Your task to perform on an android device: Open network settings Image 0: 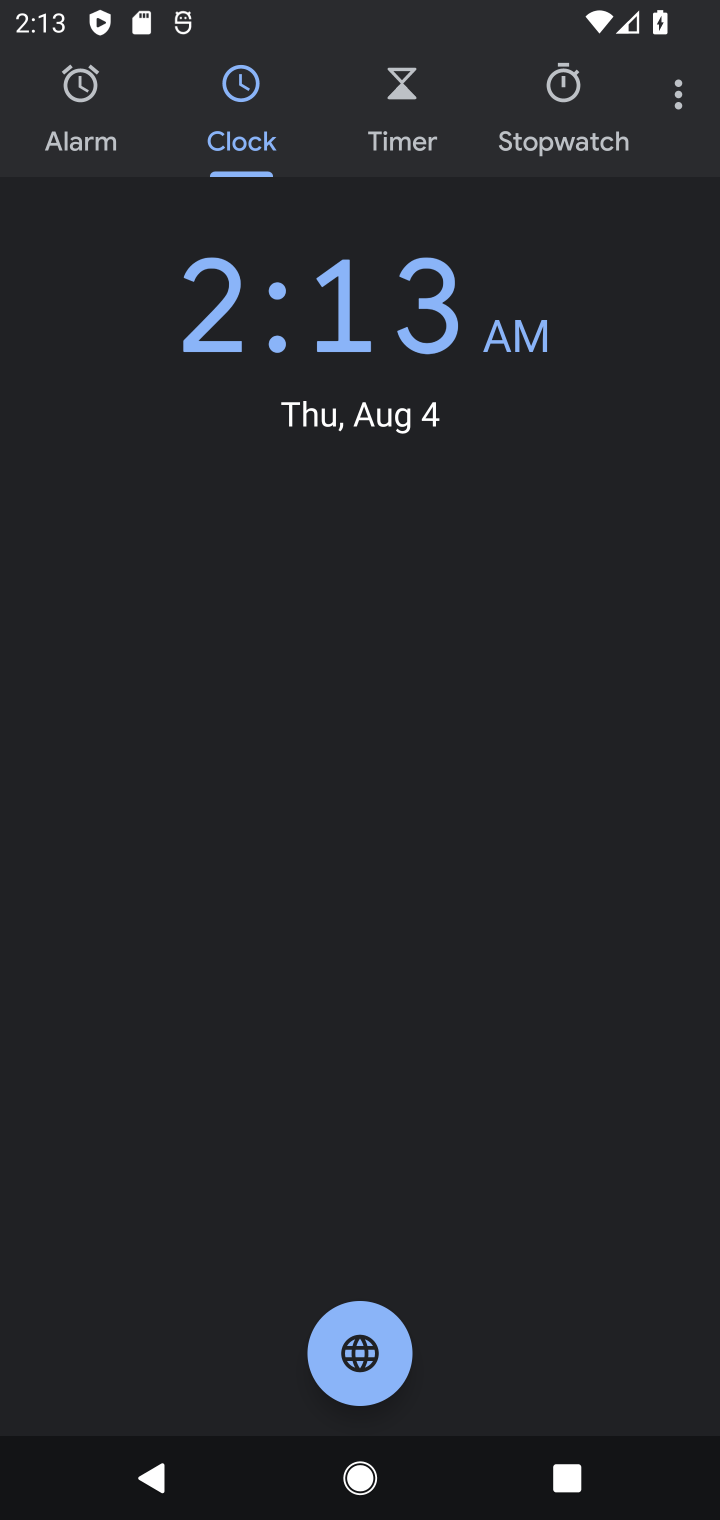
Step 0: press home button
Your task to perform on an android device: Open network settings Image 1: 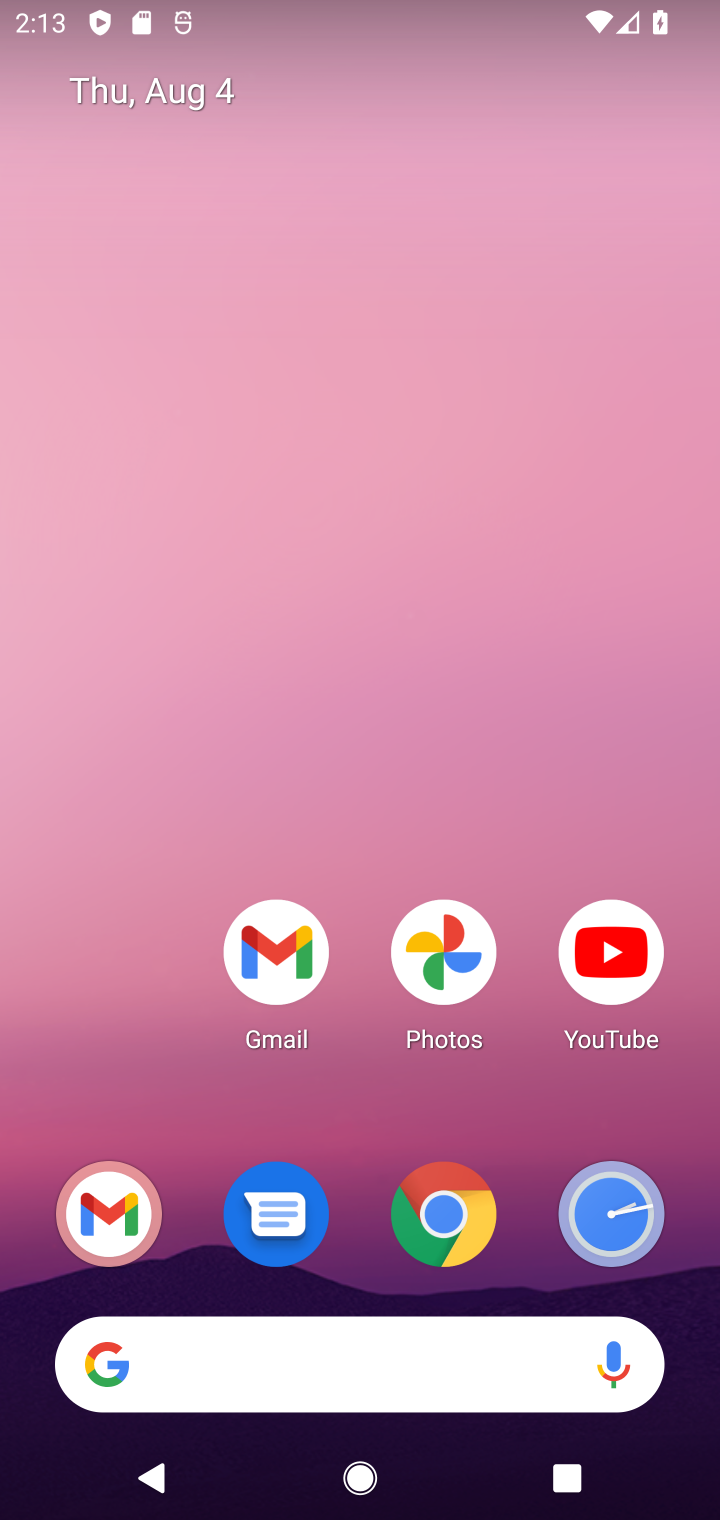
Step 1: drag from (73, 1043) to (63, 126)
Your task to perform on an android device: Open network settings Image 2: 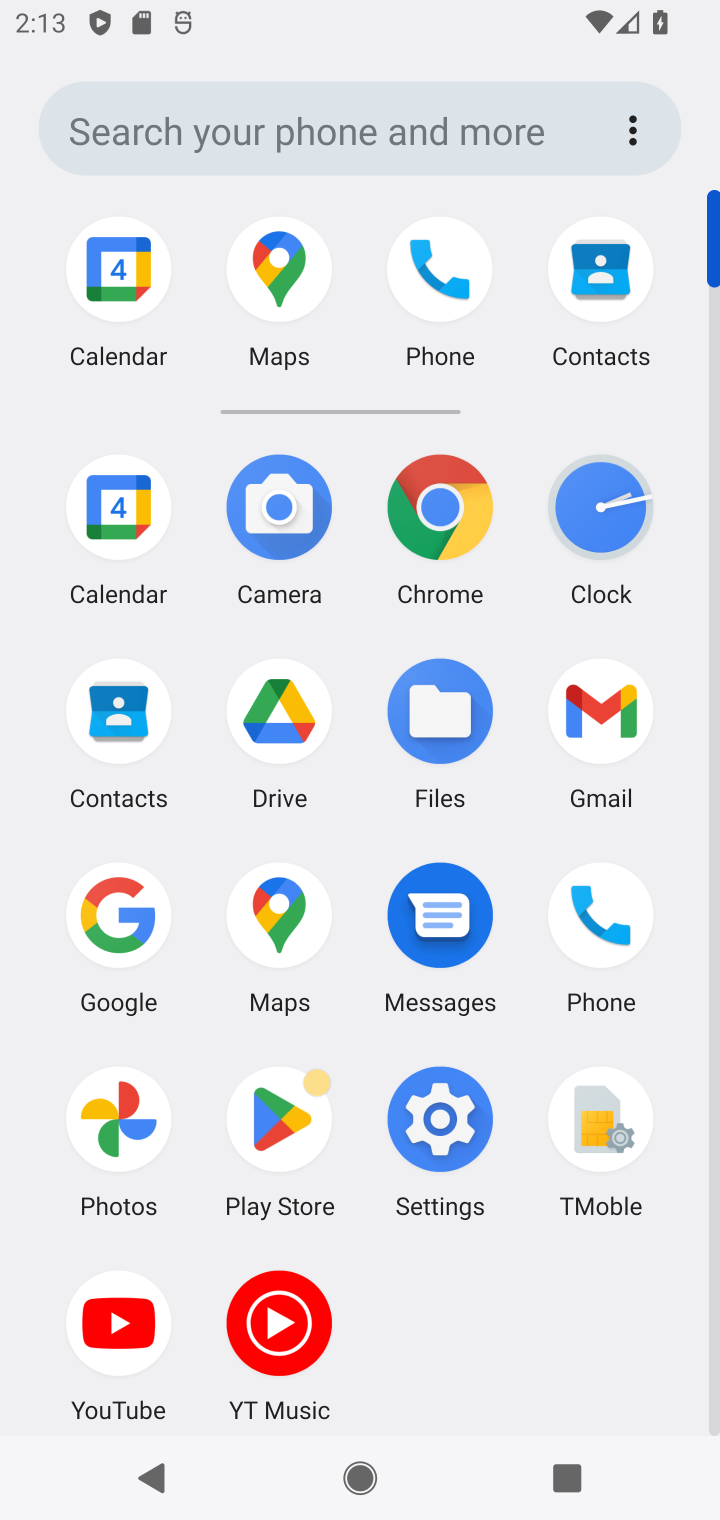
Step 2: click (440, 1107)
Your task to perform on an android device: Open network settings Image 3: 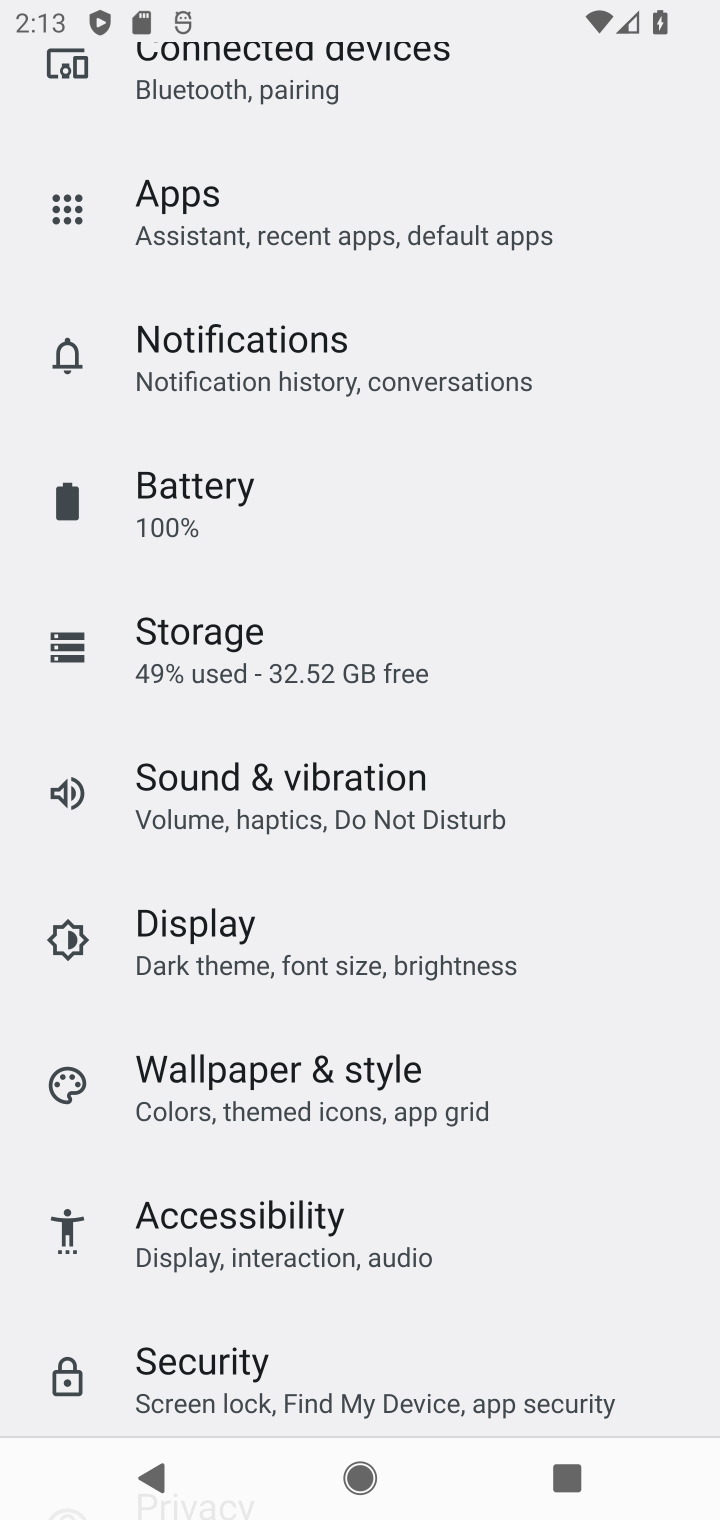
Step 3: drag from (166, 373) to (333, 1394)
Your task to perform on an android device: Open network settings Image 4: 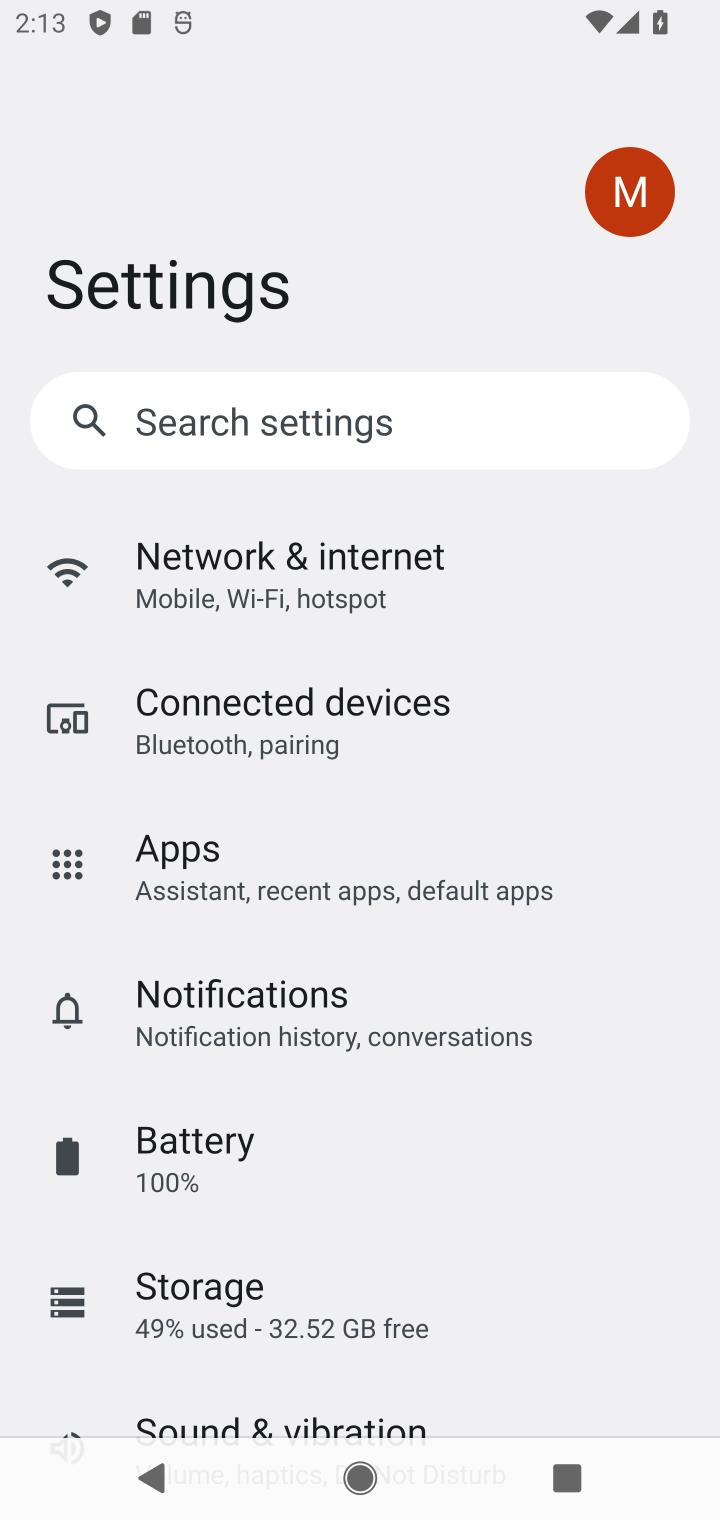
Step 4: click (355, 637)
Your task to perform on an android device: Open network settings Image 5: 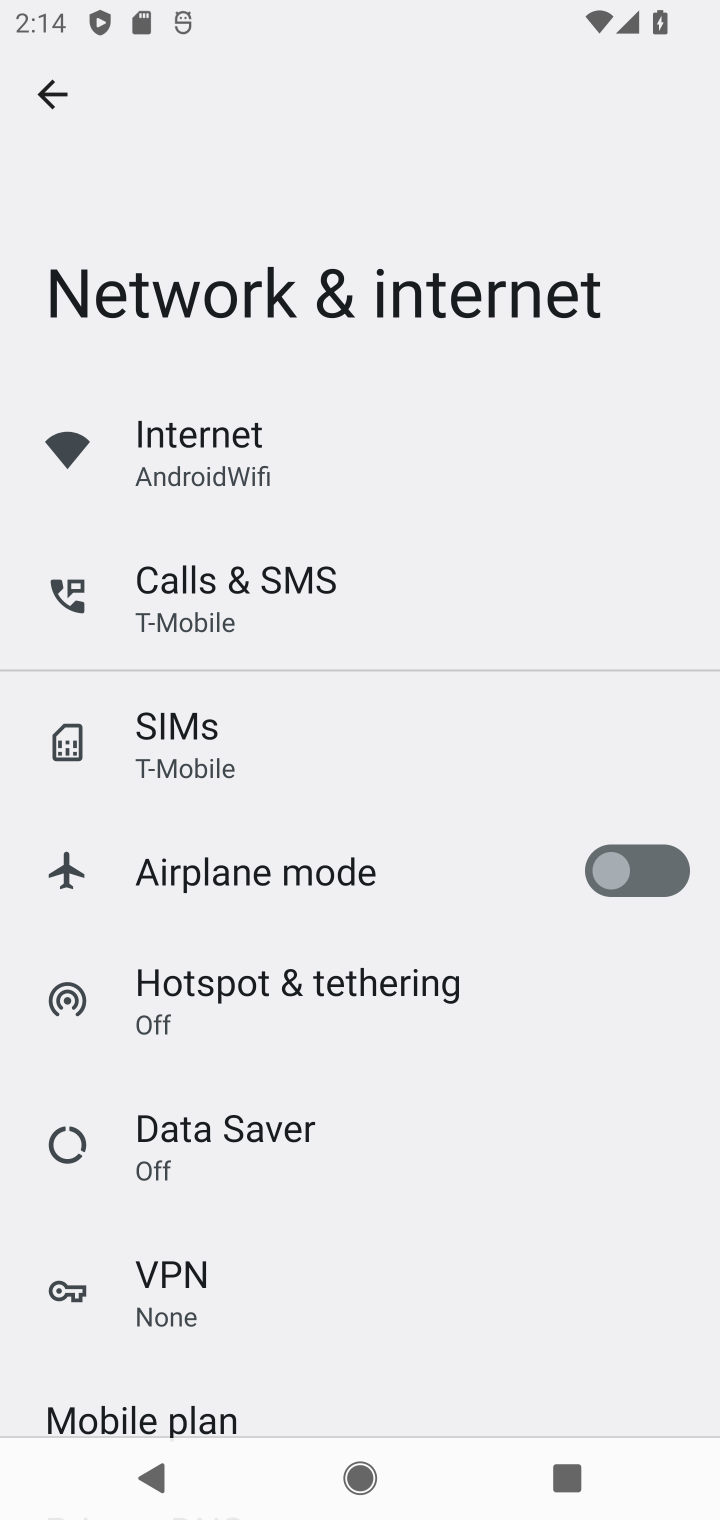
Step 5: task complete